Your task to perform on an android device: Do I have any events this weekend? Image 0: 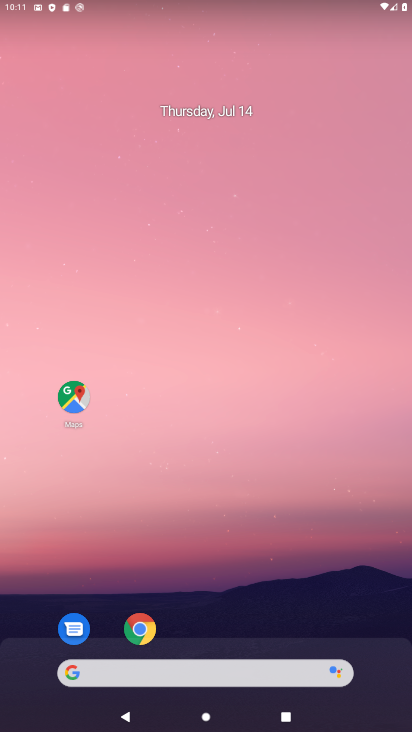
Step 0: drag from (287, 588) to (259, 9)
Your task to perform on an android device: Do I have any events this weekend? Image 1: 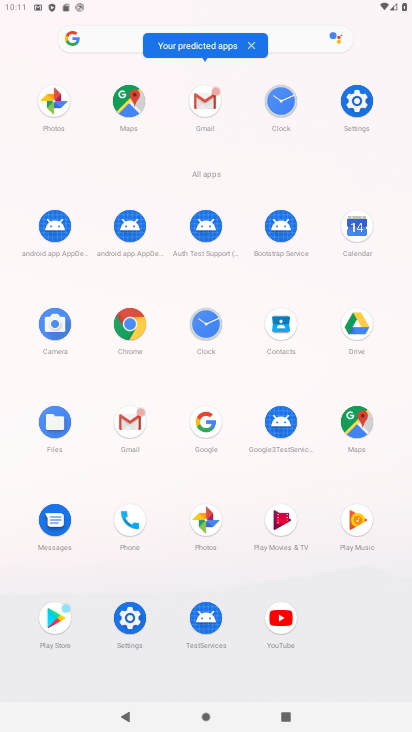
Step 1: click (358, 236)
Your task to perform on an android device: Do I have any events this weekend? Image 2: 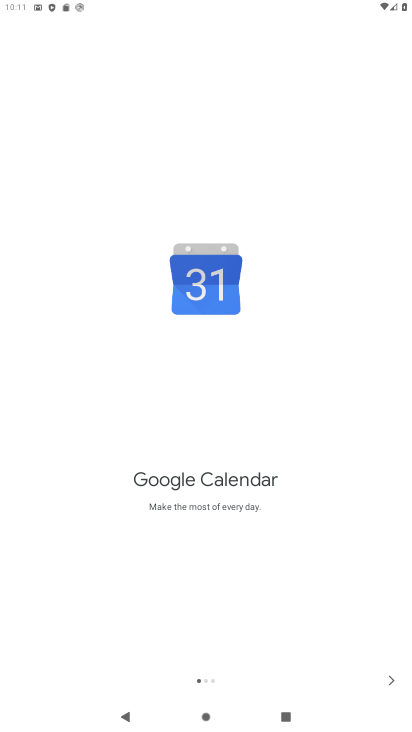
Step 2: click (391, 678)
Your task to perform on an android device: Do I have any events this weekend? Image 3: 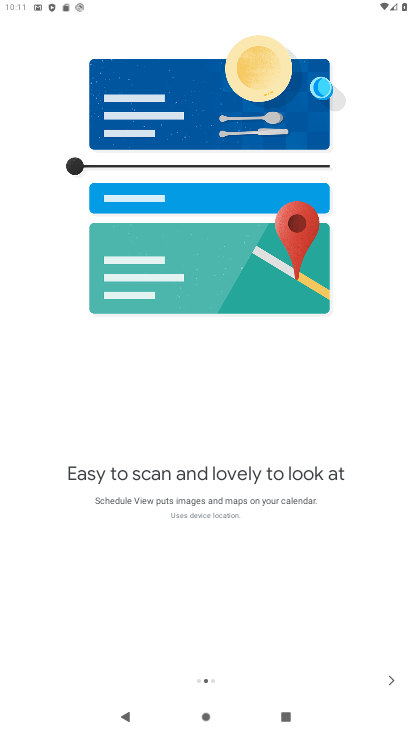
Step 3: click (400, 681)
Your task to perform on an android device: Do I have any events this weekend? Image 4: 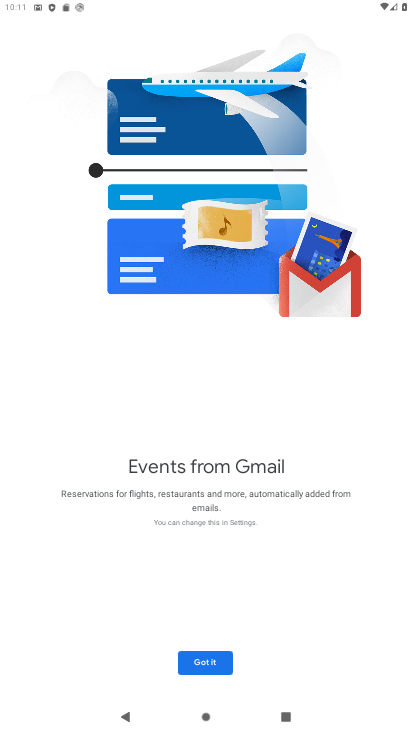
Step 4: click (219, 668)
Your task to perform on an android device: Do I have any events this weekend? Image 5: 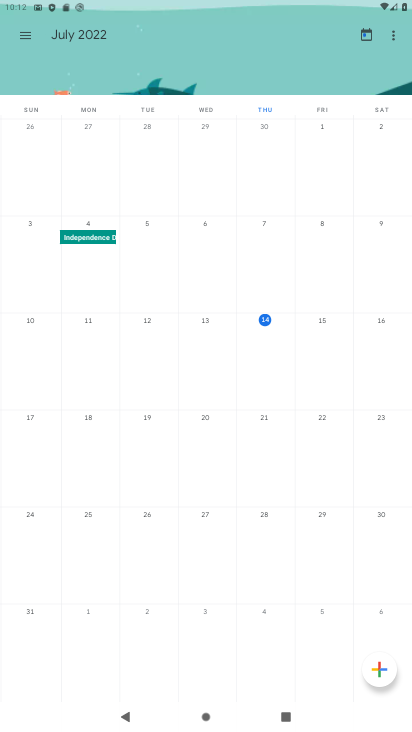
Step 5: click (323, 340)
Your task to perform on an android device: Do I have any events this weekend? Image 6: 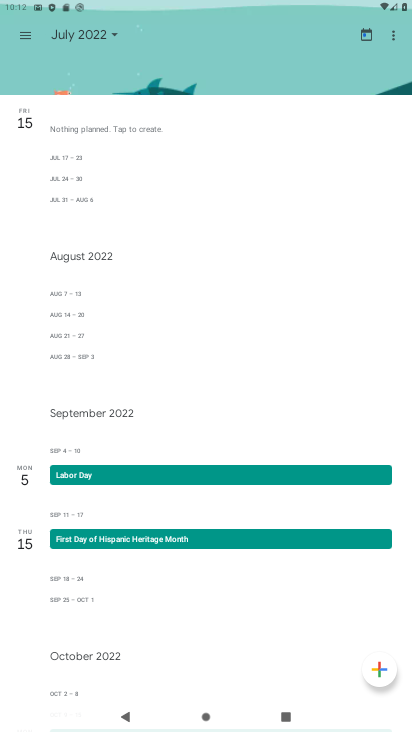
Step 6: click (376, 333)
Your task to perform on an android device: Do I have any events this weekend? Image 7: 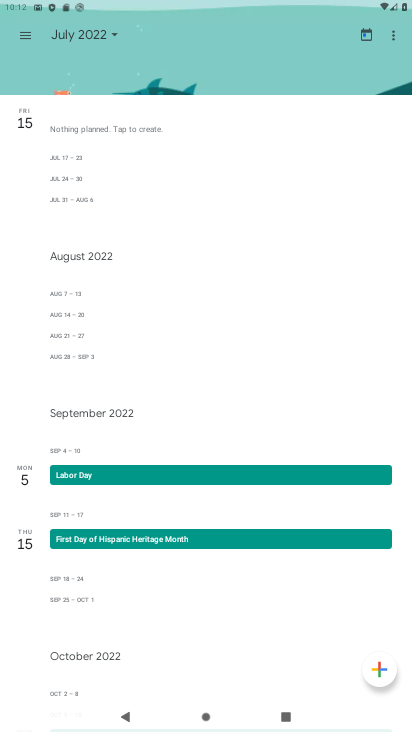
Step 7: click (114, 33)
Your task to perform on an android device: Do I have any events this weekend? Image 8: 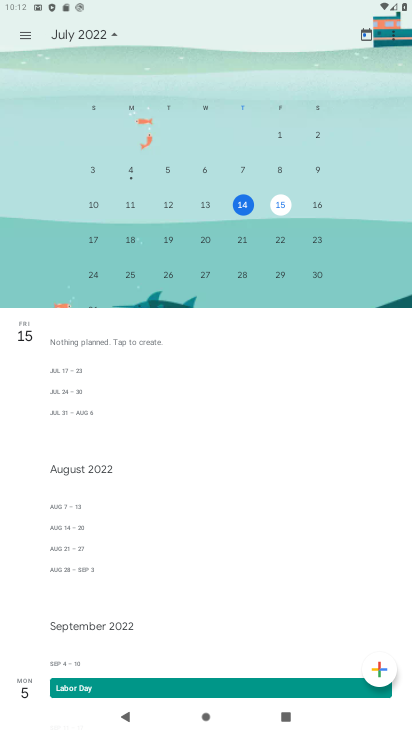
Step 8: click (309, 205)
Your task to perform on an android device: Do I have any events this weekend? Image 9: 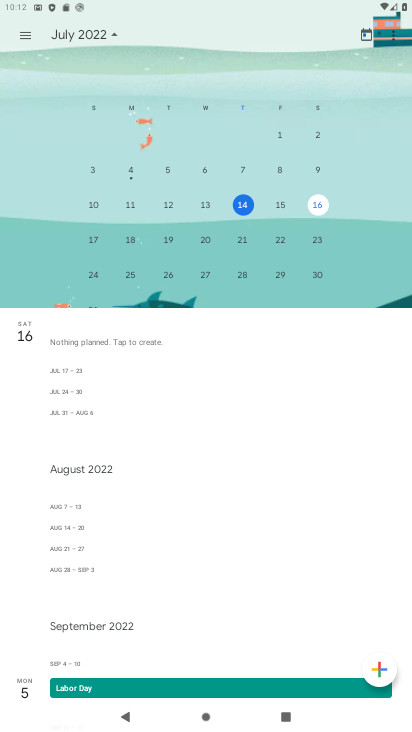
Step 9: click (103, 247)
Your task to perform on an android device: Do I have any events this weekend? Image 10: 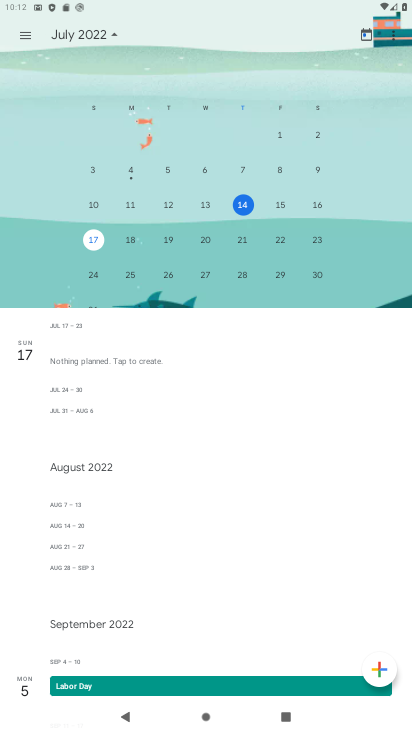
Step 10: task complete